Your task to perform on an android device: turn off airplane mode Image 0: 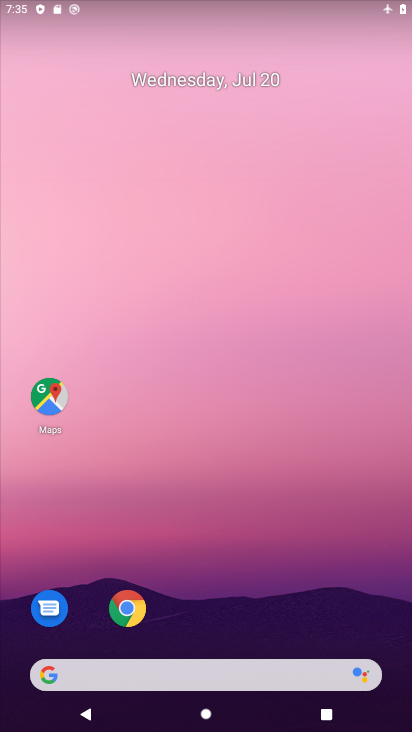
Step 0: drag from (306, 570) to (191, 12)
Your task to perform on an android device: turn off airplane mode Image 1: 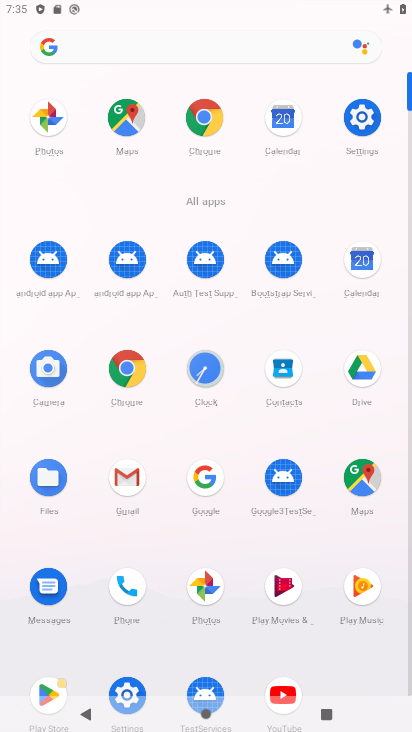
Step 1: click (364, 110)
Your task to perform on an android device: turn off airplane mode Image 2: 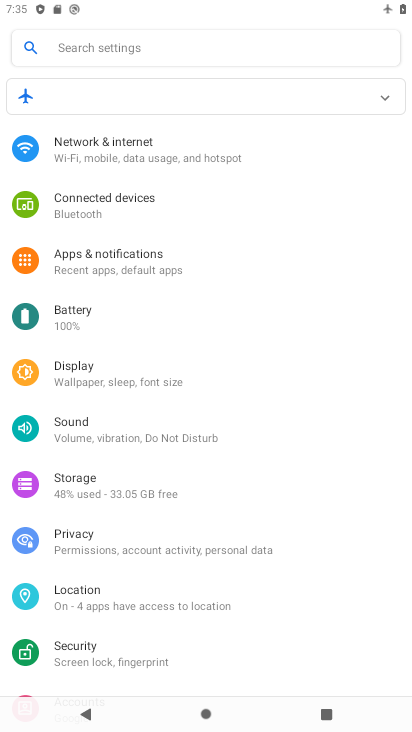
Step 2: click (133, 161)
Your task to perform on an android device: turn off airplane mode Image 3: 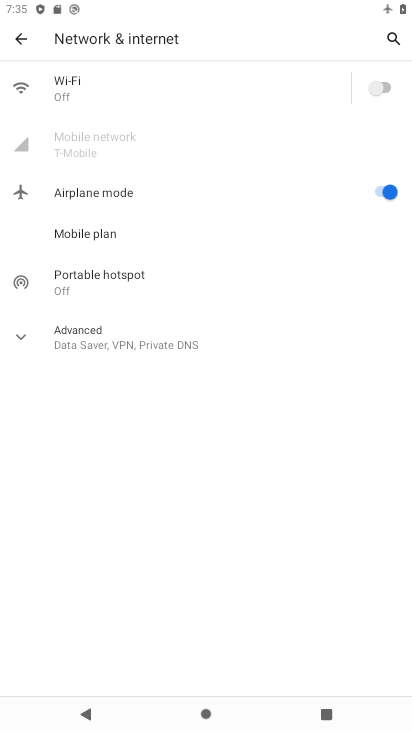
Step 3: click (383, 192)
Your task to perform on an android device: turn off airplane mode Image 4: 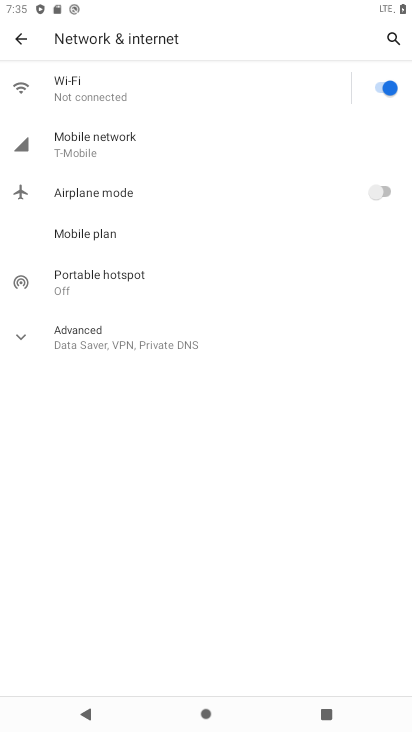
Step 4: task complete